Your task to perform on an android device: Open ESPN.com Image 0: 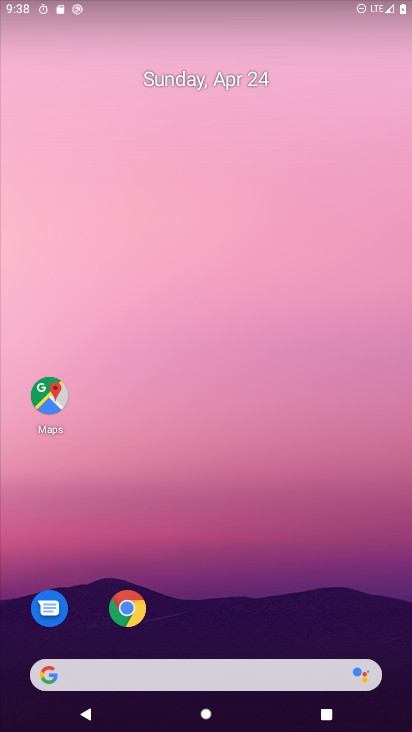
Step 0: click (189, 679)
Your task to perform on an android device: Open ESPN.com Image 1: 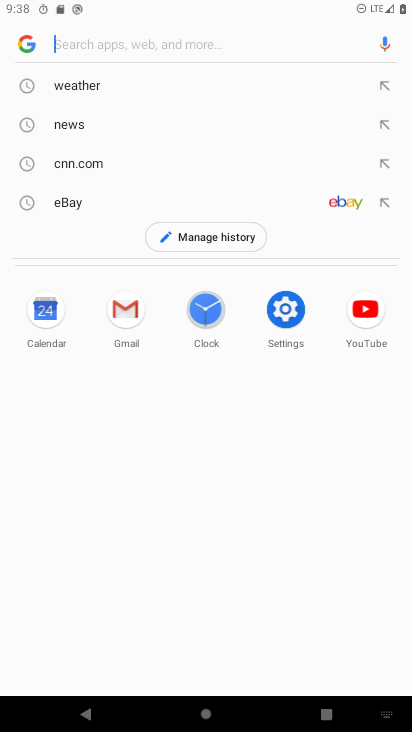
Step 1: type "espn.com"
Your task to perform on an android device: Open ESPN.com Image 2: 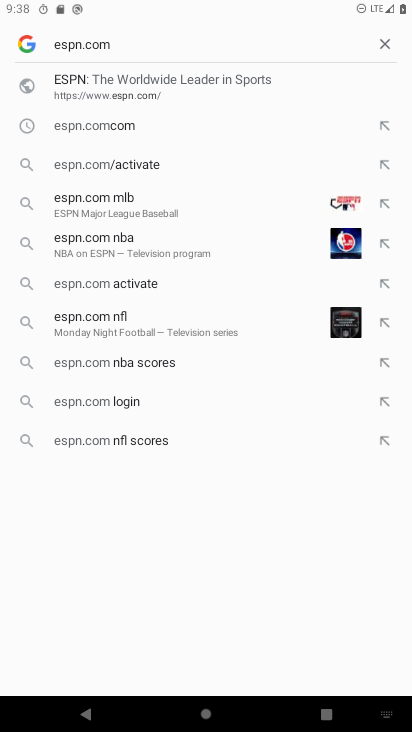
Step 2: click (182, 78)
Your task to perform on an android device: Open ESPN.com Image 3: 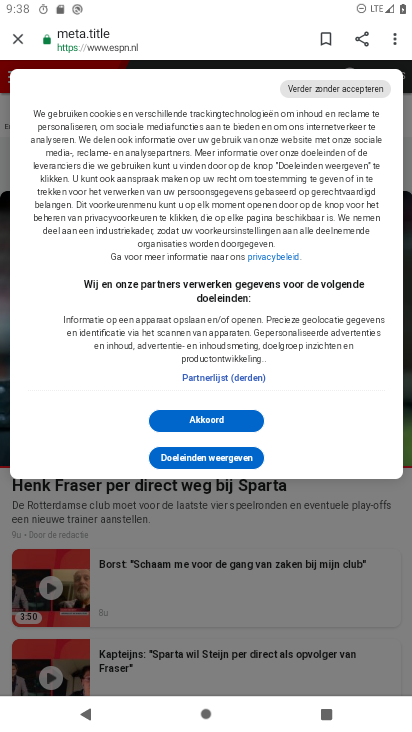
Step 3: task complete